Your task to perform on an android device: open app "Skype" Image 0: 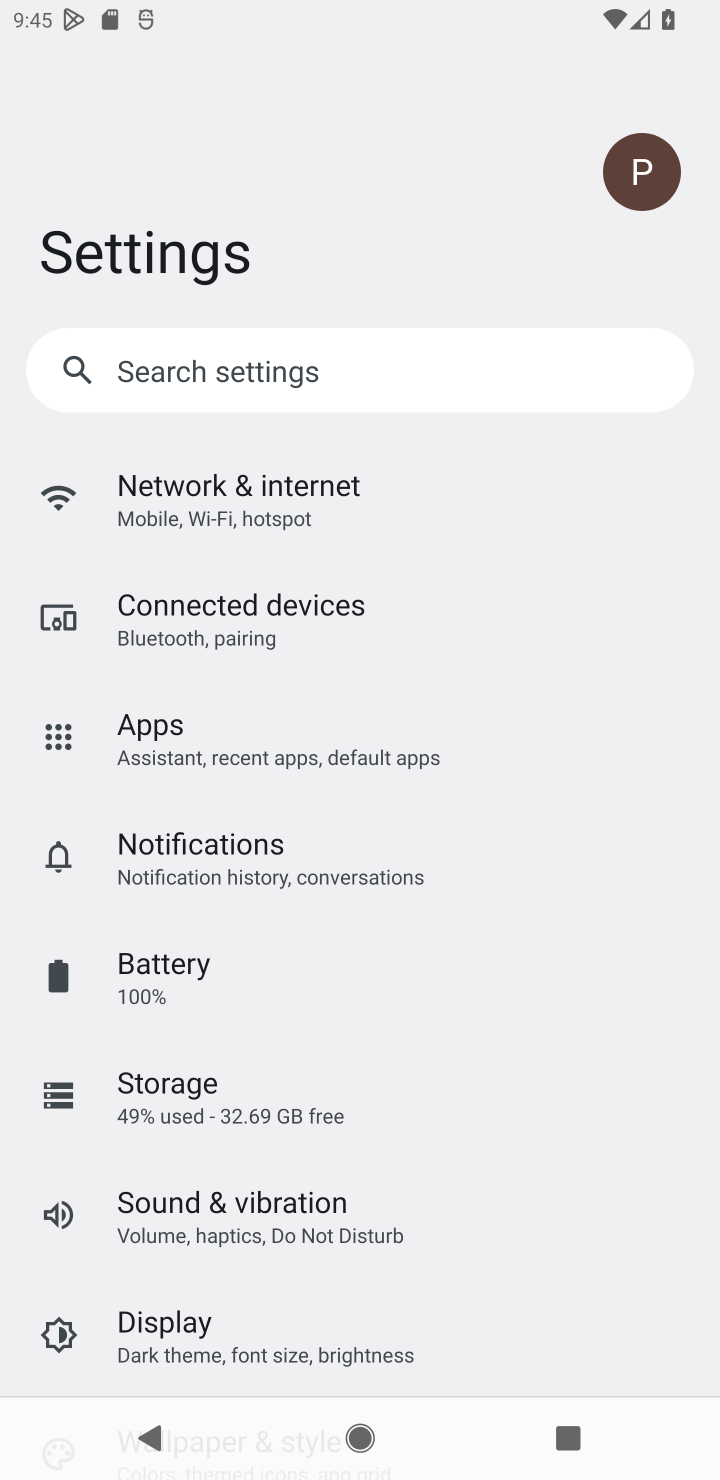
Step 0: press home button
Your task to perform on an android device: open app "Skype" Image 1: 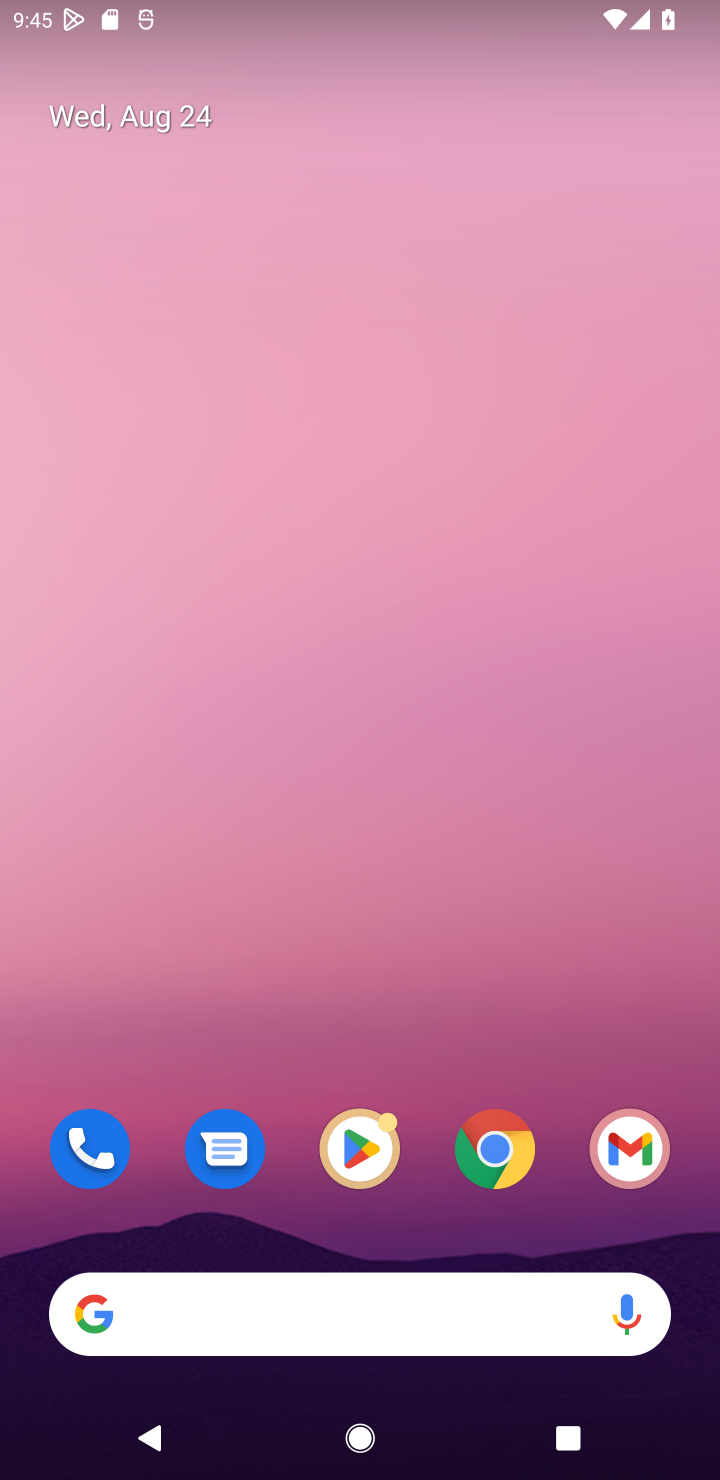
Step 1: drag from (316, 1244) to (538, 34)
Your task to perform on an android device: open app "Skype" Image 2: 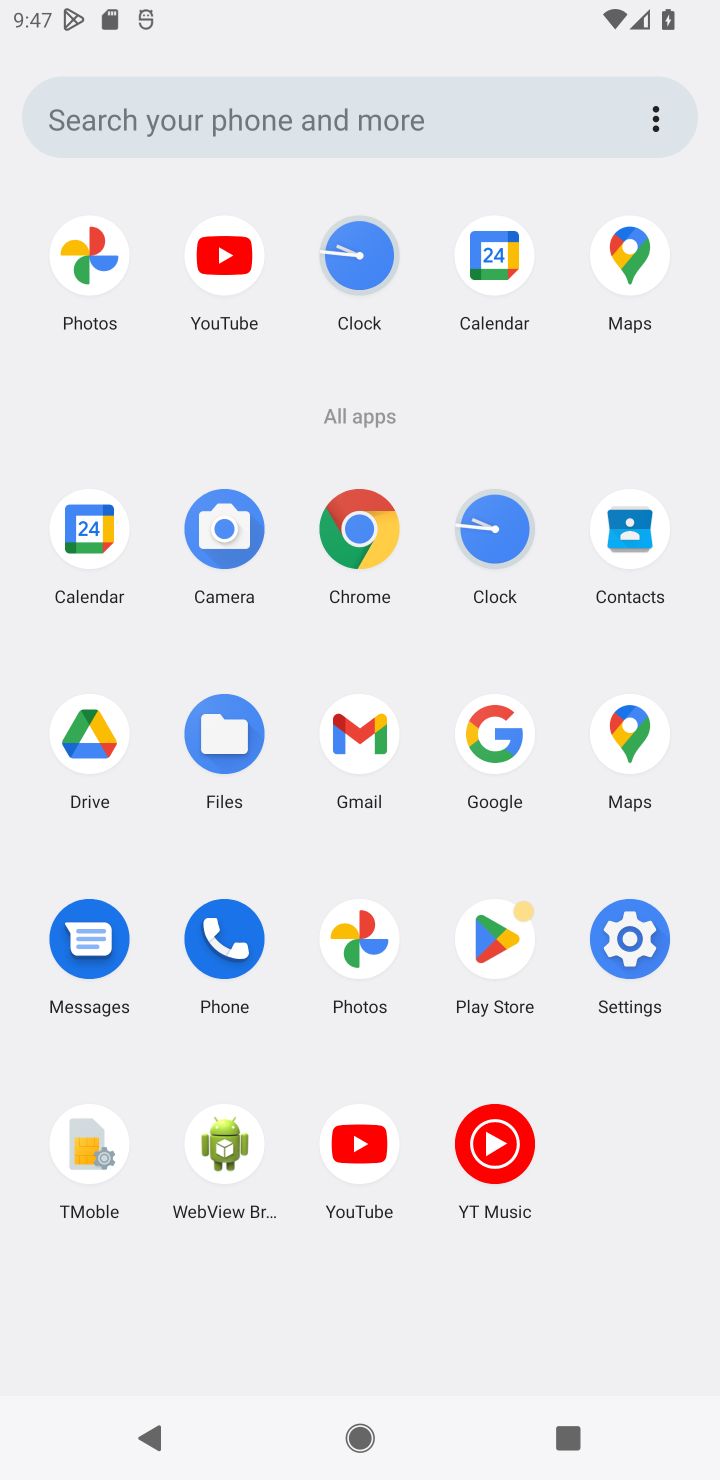
Step 2: click (521, 953)
Your task to perform on an android device: open app "Skype" Image 3: 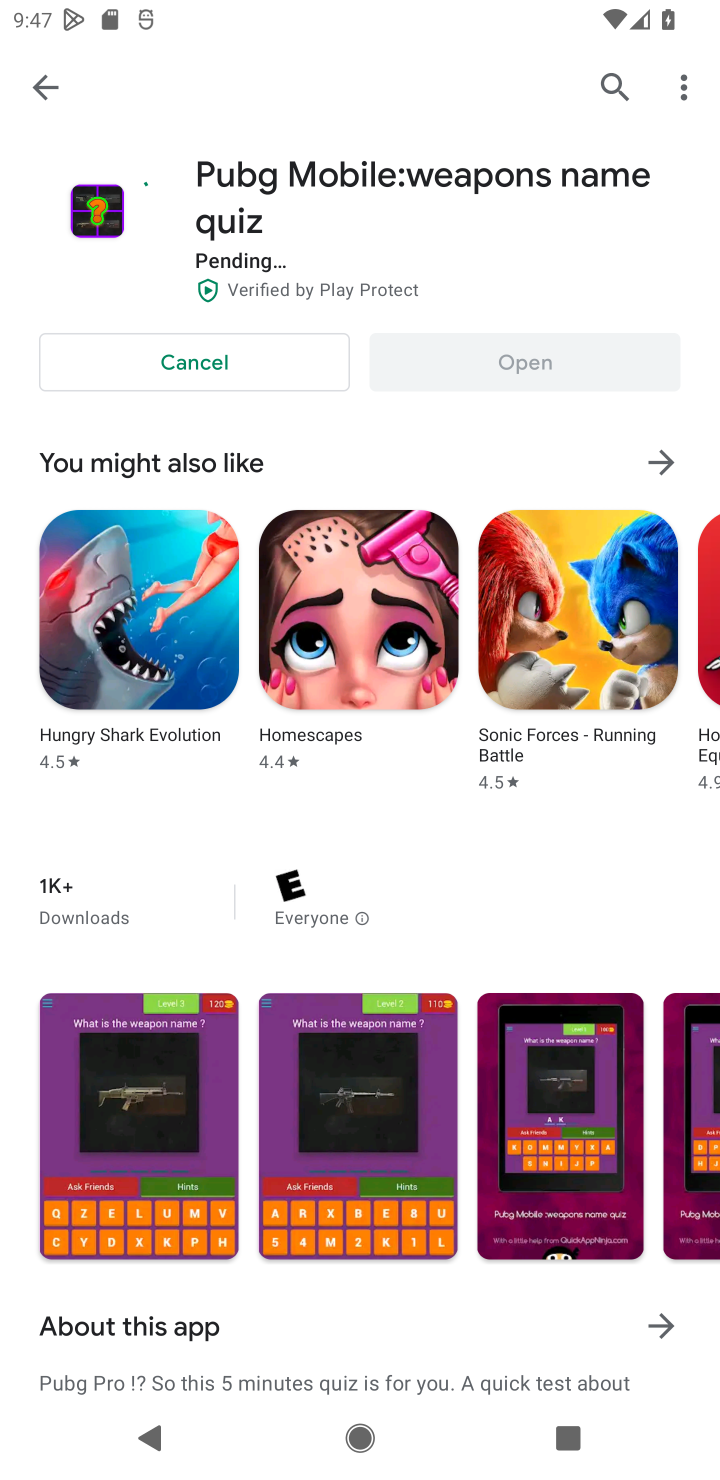
Step 3: press back button
Your task to perform on an android device: open app "Skype" Image 4: 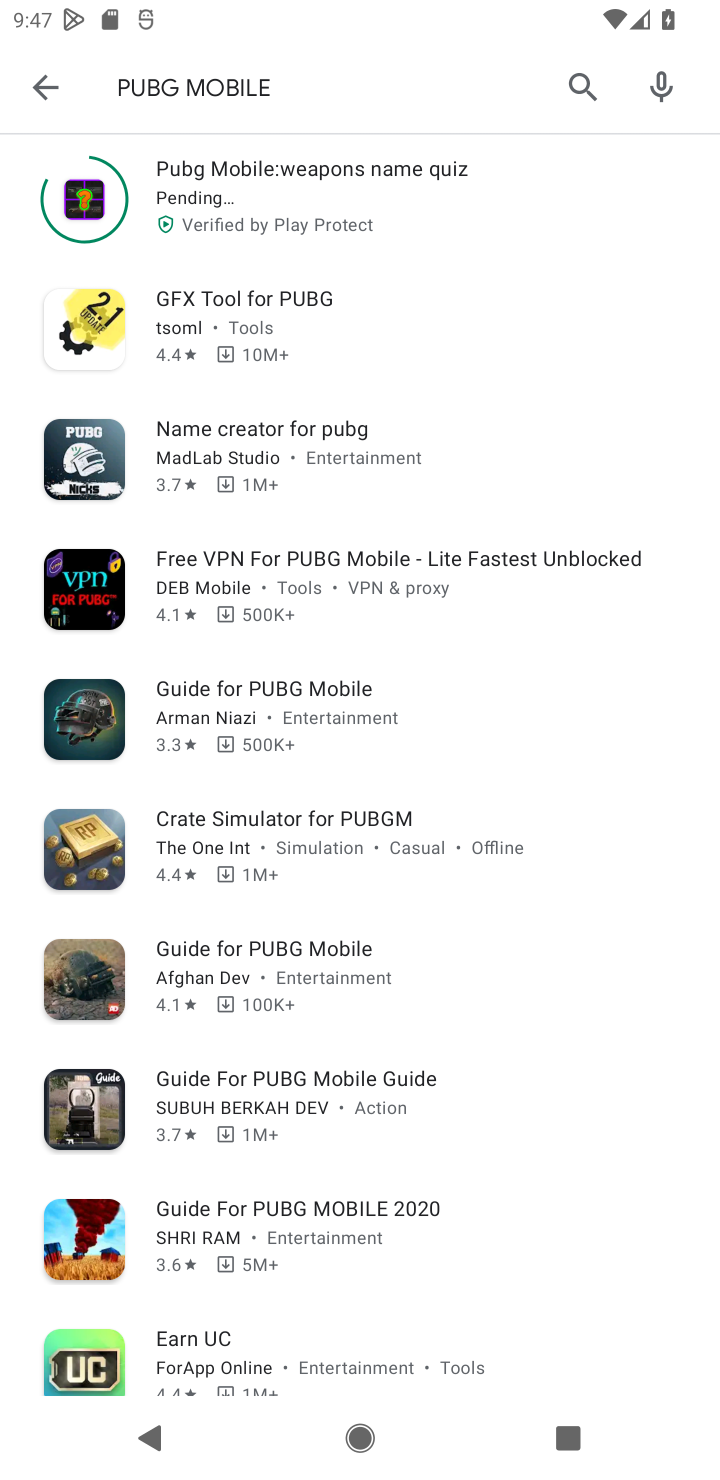
Step 4: press back button
Your task to perform on an android device: open app "Skype" Image 5: 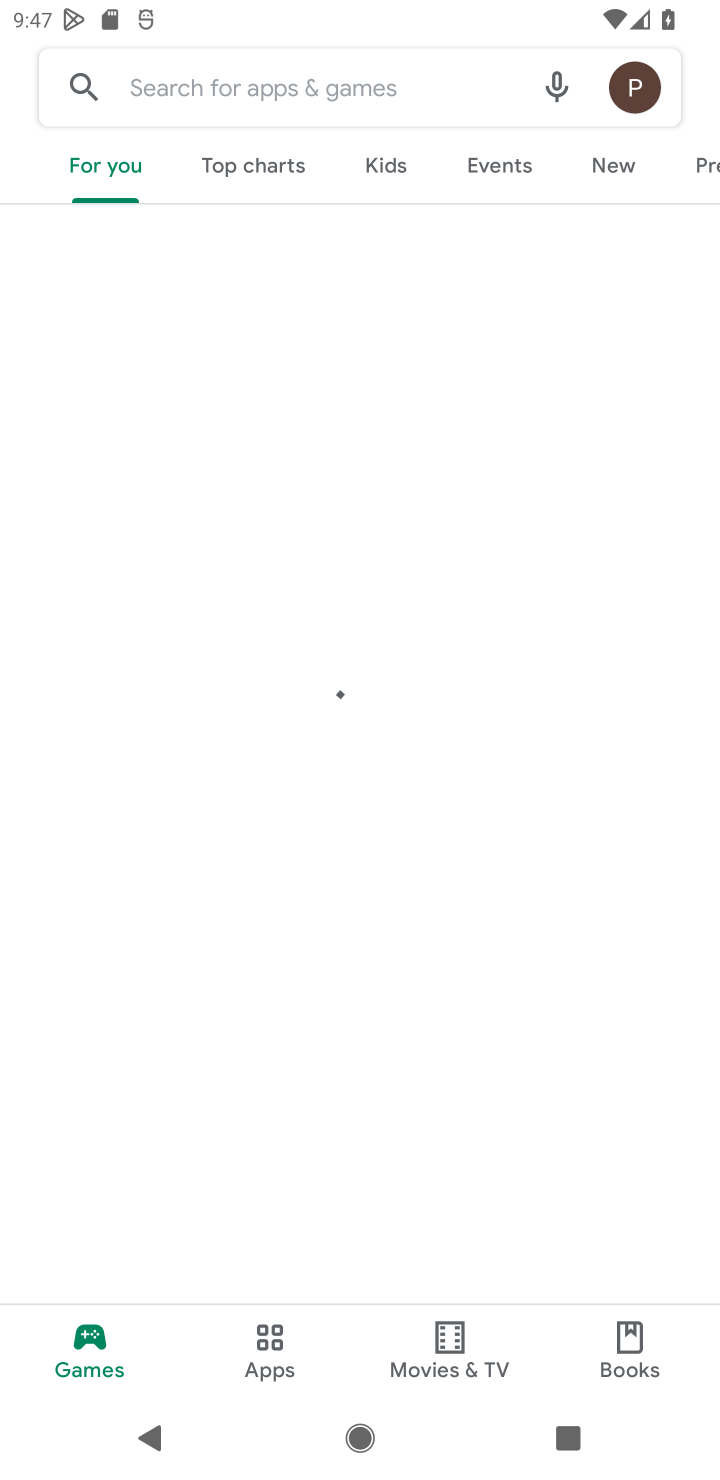
Step 5: click (175, 79)
Your task to perform on an android device: open app "Skype" Image 6: 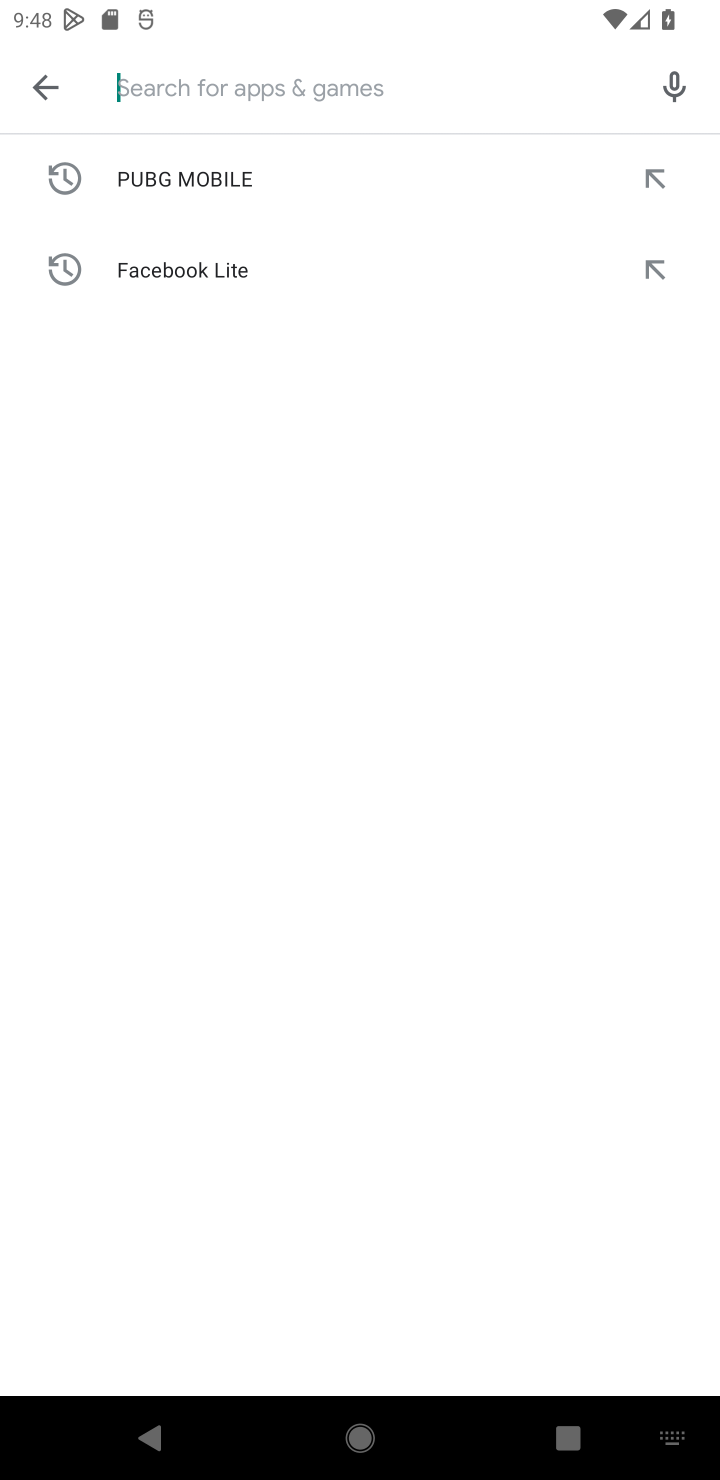
Step 6: type "Skype"
Your task to perform on an android device: open app "Skype" Image 7: 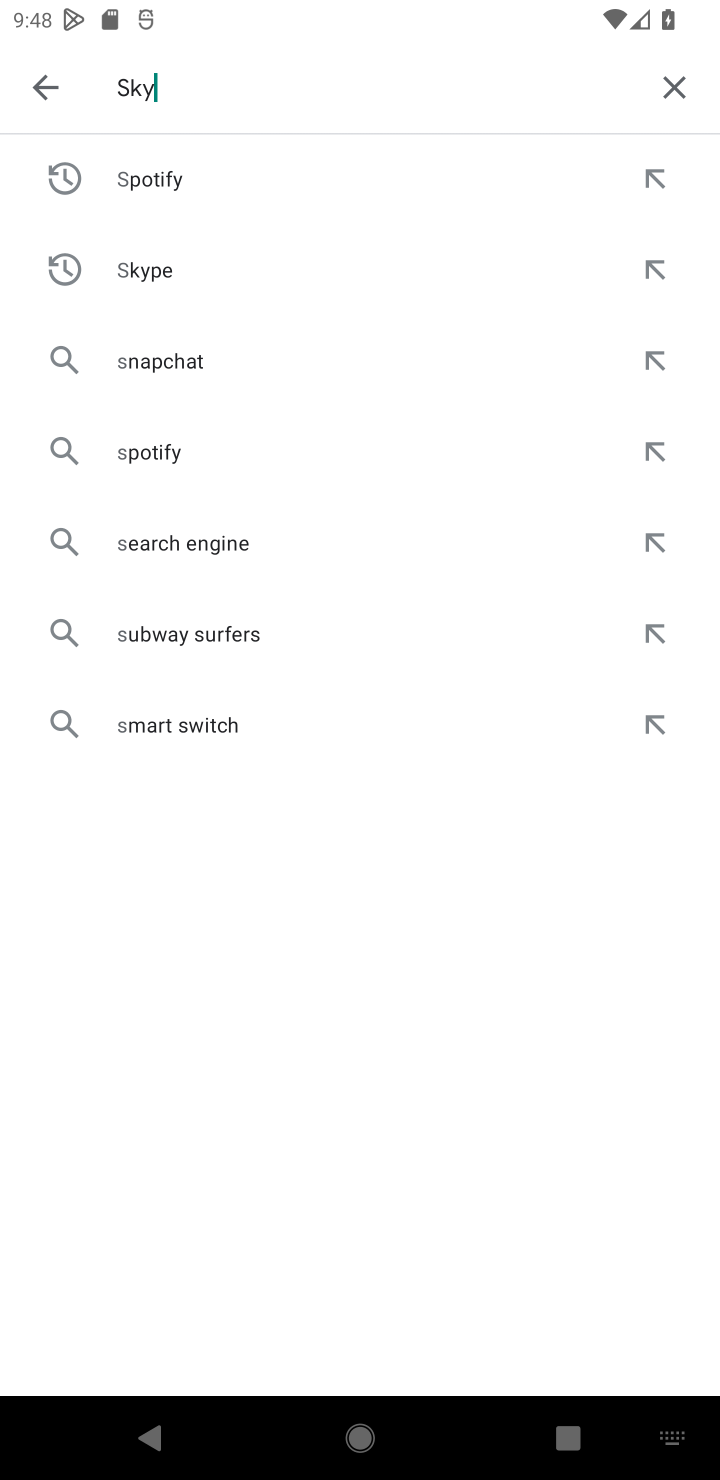
Step 7: press enter
Your task to perform on an android device: open app "Skype" Image 8: 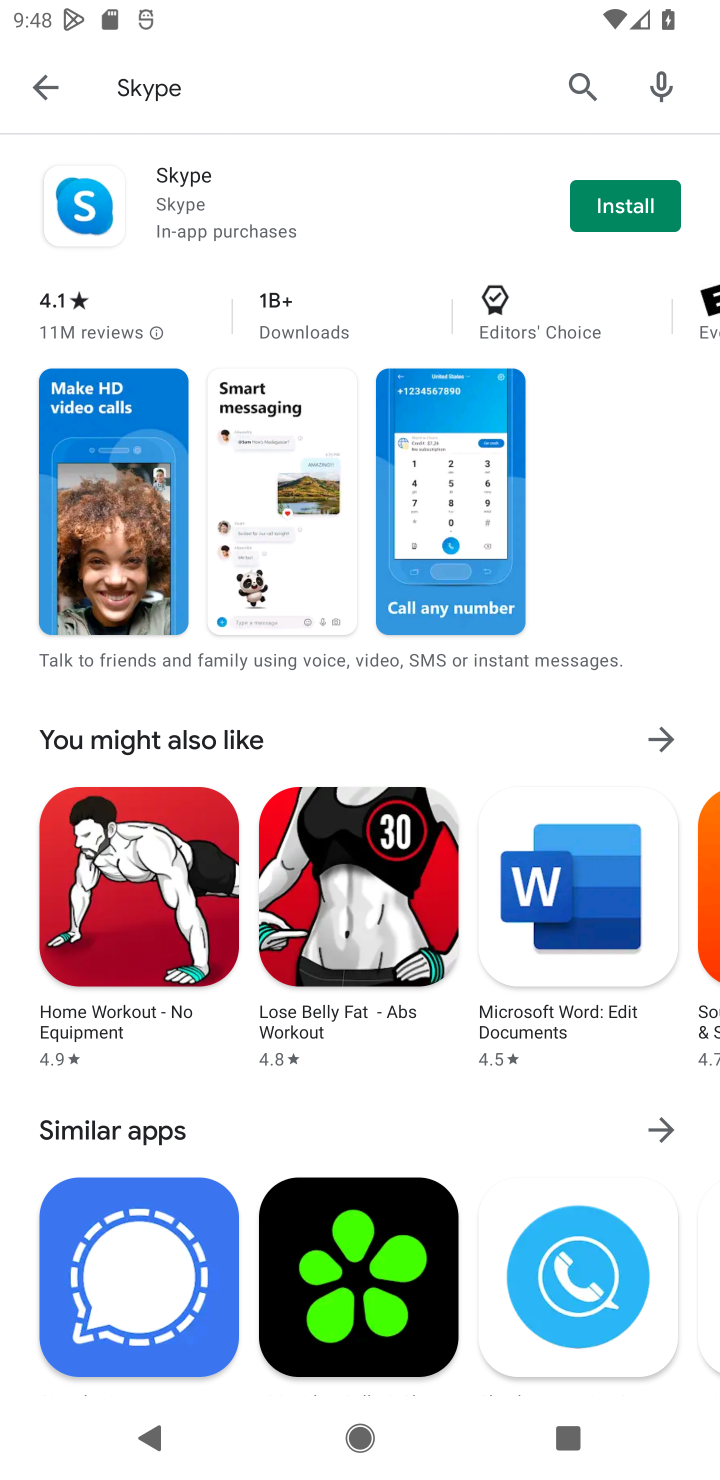
Step 8: task complete